Your task to perform on an android device: Open the map Image 0: 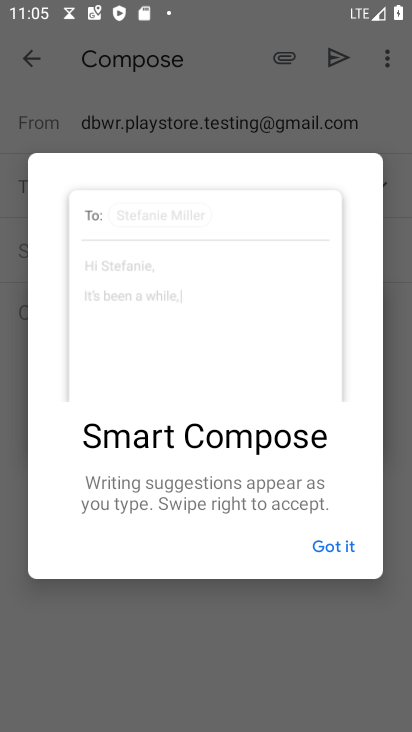
Step 0: press home button
Your task to perform on an android device: Open the map Image 1: 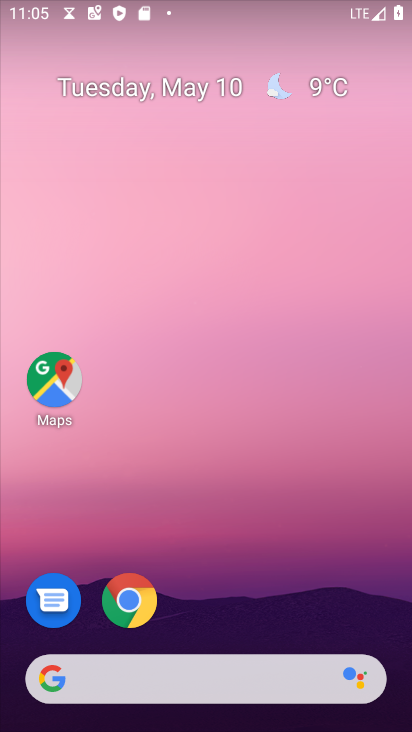
Step 1: click (66, 368)
Your task to perform on an android device: Open the map Image 2: 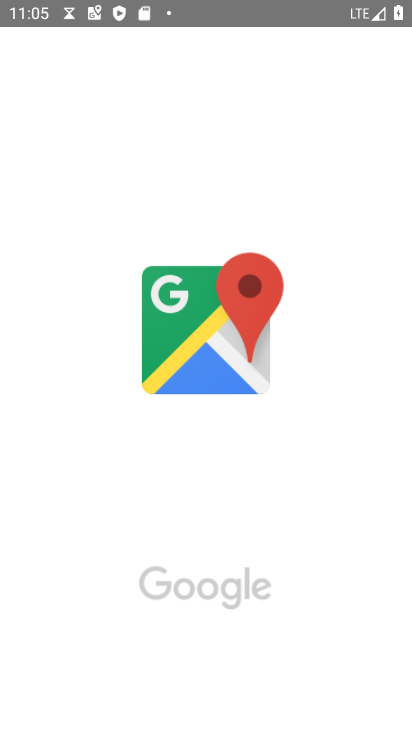
Step 2: task complete